Your task to perform on an android device: toggle airplane mode Image 0: 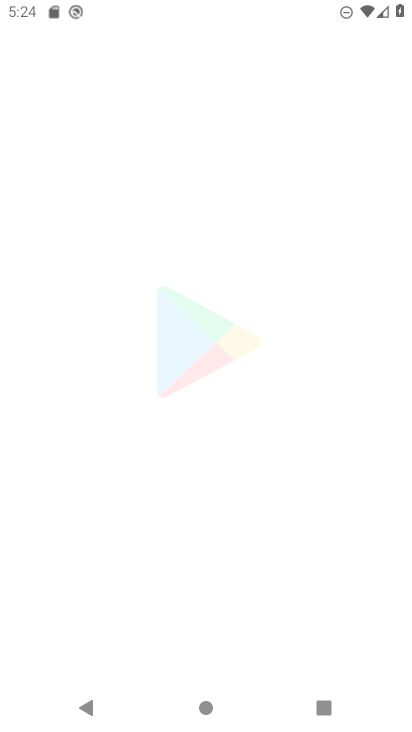
Step 0: drag from (254, 624) to (196, 6)
Your task to perform on an android device: toggle airplane mode Image 1: 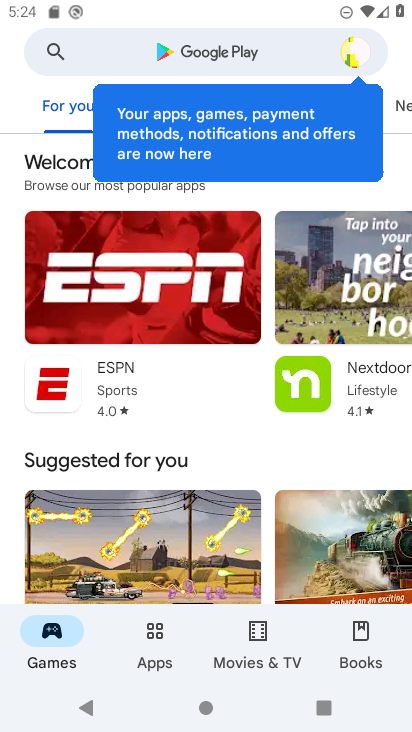
Step 1: press back button
Your task to perform on an android device: toggle airplane mode Image 2: 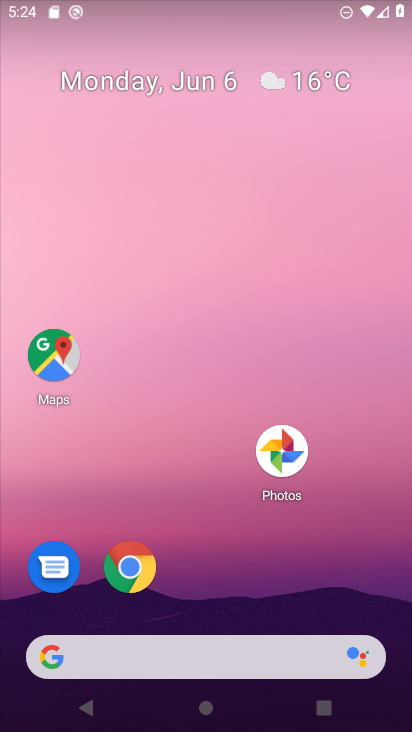
Step 2: drag from (177, 697) to (152, 0)
Your task to perform on an android device: toggle airplane mode Image 3: 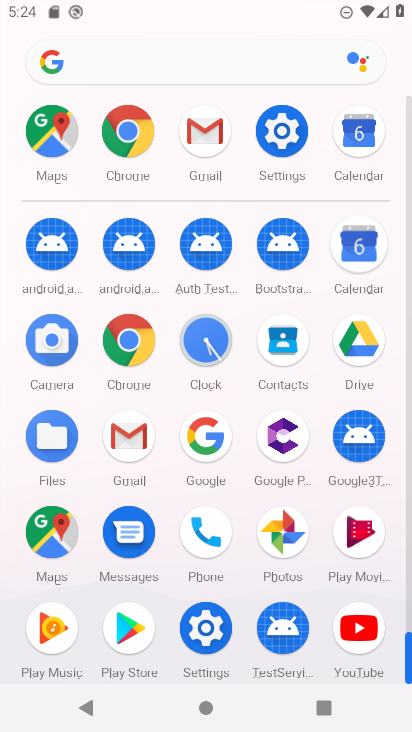
Step 3: click (258, 122)
Your task to perform on an android device: toggle airplane mode Image 4: 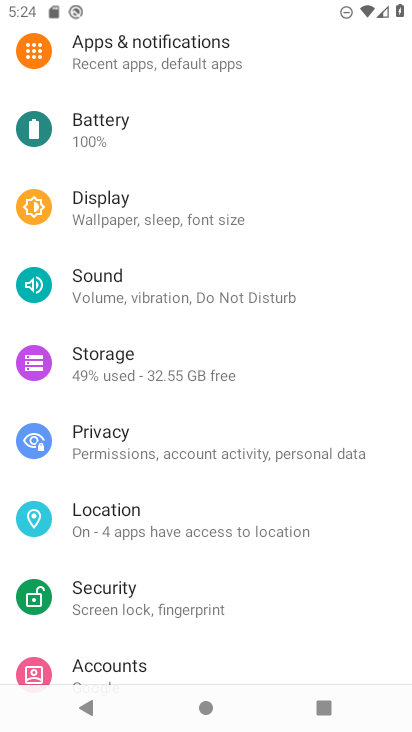
Step 4: drag from (169, 85) to (206, 590)
Your task to perform on an android device: toggle airplane mode Image 5: 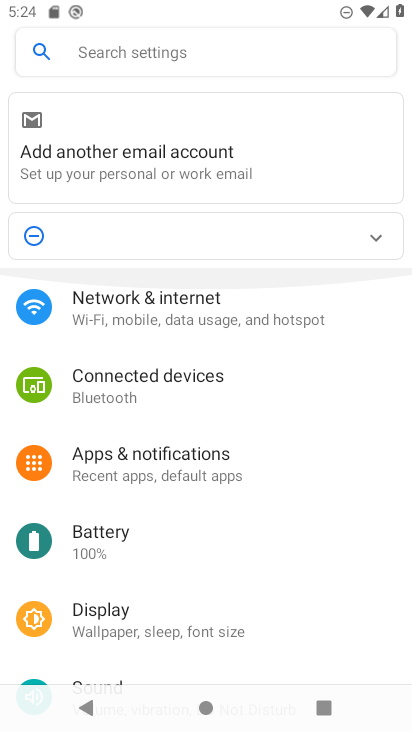
Step 5: drag from (148, 207) to (222, 576)
Your task to perform on an android device: toggle airplane mode Image 6: 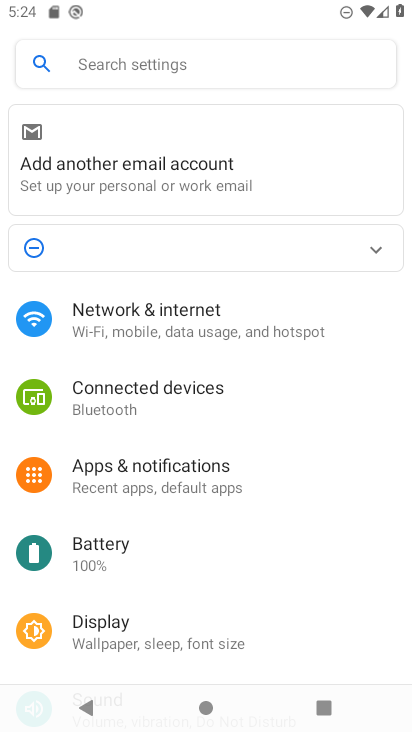
Step 6: click (155, 326)
Your task to perform on an android device: toggle airplane mode Image 7: 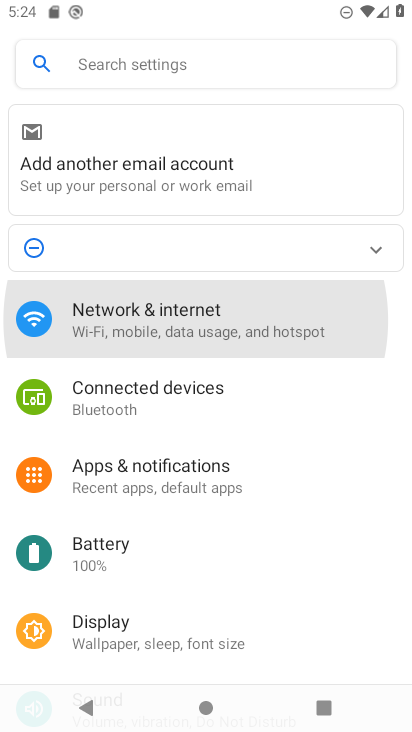
Step 7: click (155, 325)
Your task to perform on an android device: toggle airplane mode Image 8: 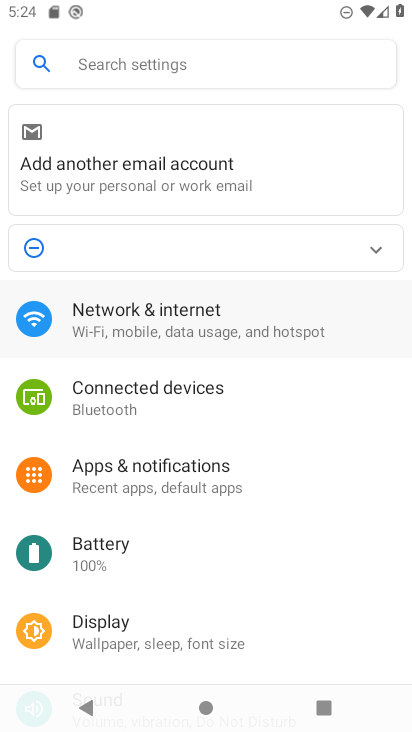
Step 8: click (159, 326)
Your task to perform on an android device: toggle airplane mode Image 9: 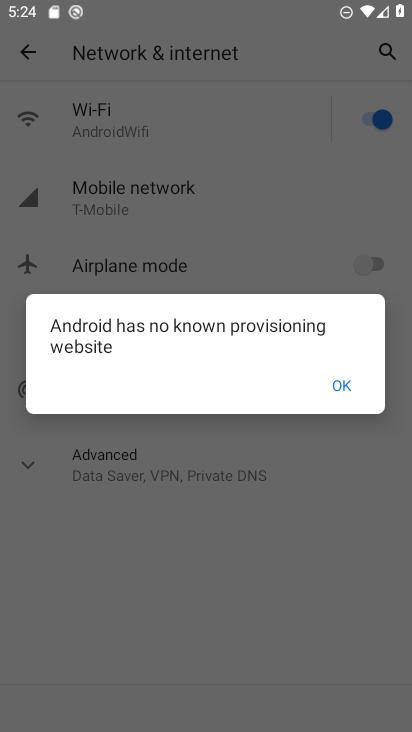
Step 9: click (334, 393)
Your task to perform on an android device: toggle airplane mode Image 10: 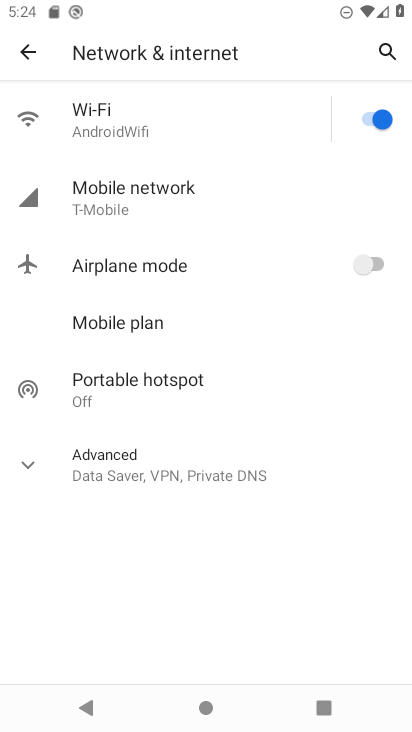
Step 10: click (354, 268)
Your task to perform on an android device: toggle airplane mode Image 11: 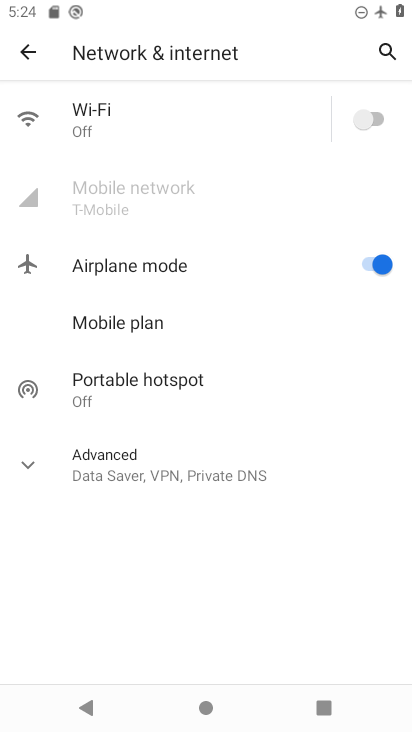
Step 11: click (361, 119)
Your task to perform on an android device: toggle airplane mode Image 12: 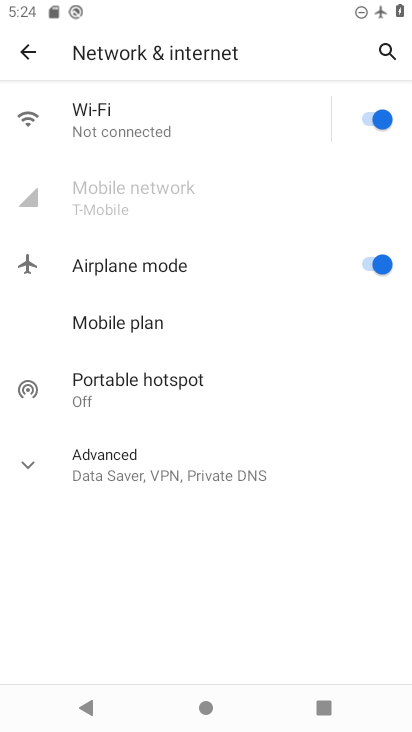
Step 12: task complete